Your task to perform on an android device: Show me recent news Image 0: 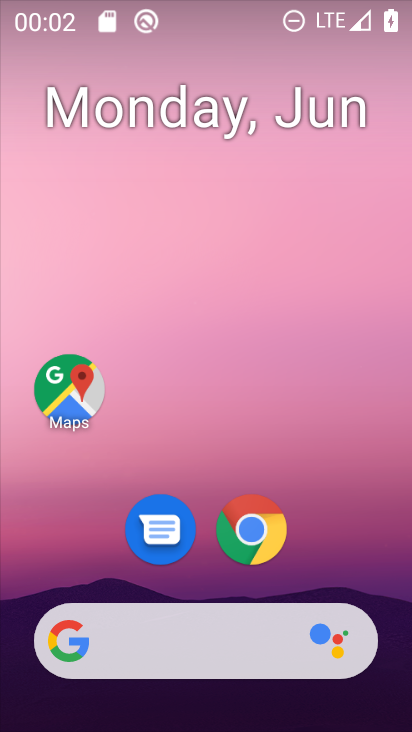
Step 0: drag from (29, 289) to (367, 295)
Your task to perform on an android device: Show me recent news Image 1: 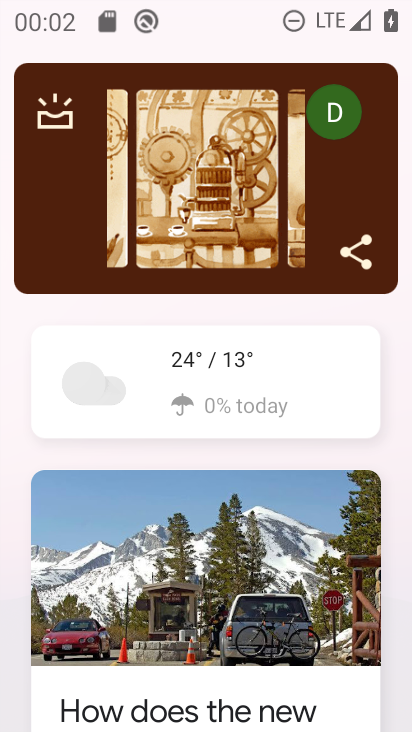
Step 1: task complete